Your task to perform on an android device: add a contact in the contacts app Image 0: 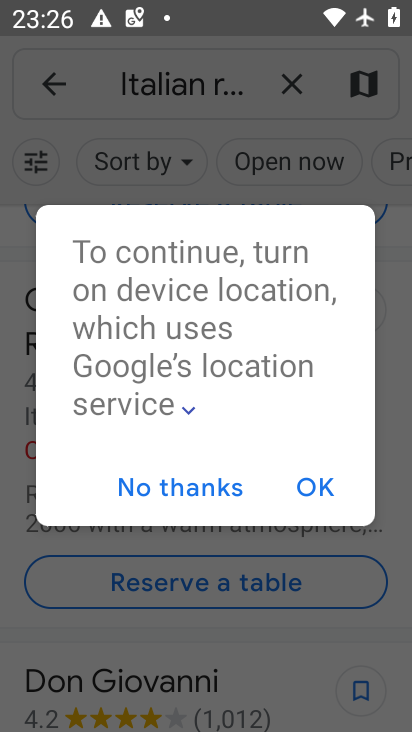
Step 0: press home button
Your task to perform on an android device: add a contact in the contacts app Image 1: 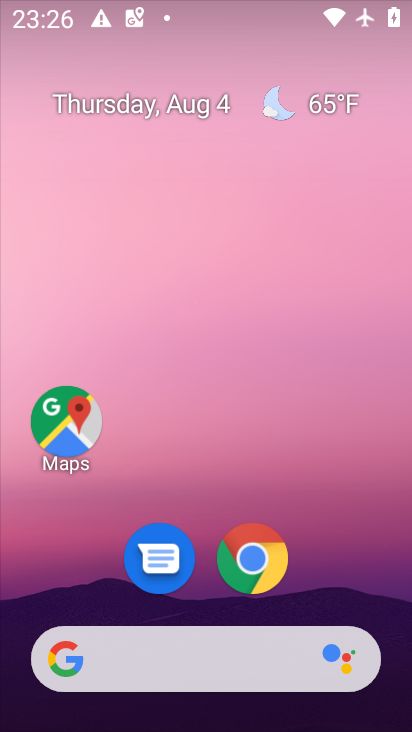
Step 1: drag from (362, 539) to (306, 38)
Your task to perform on an android device: add a contact in the contacts app Image 2: 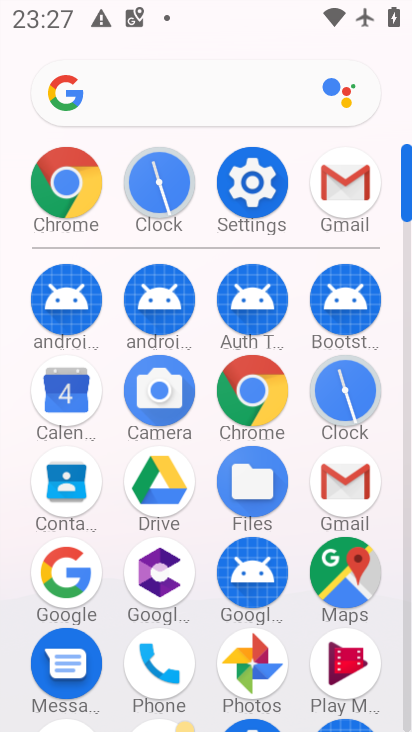
Step 2: click (57, 486)
Your task to perform on an android device: add a contact in the contacts app Image 3: 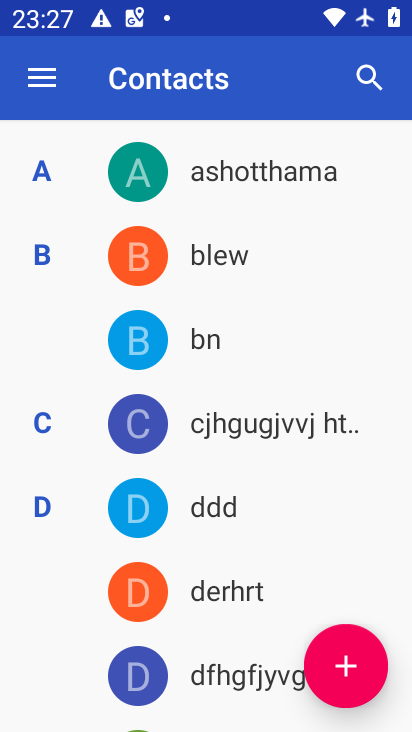
Step 3: click (332, 672)
Your task to perform on an android device: add a contact in the contacts app Image 4: 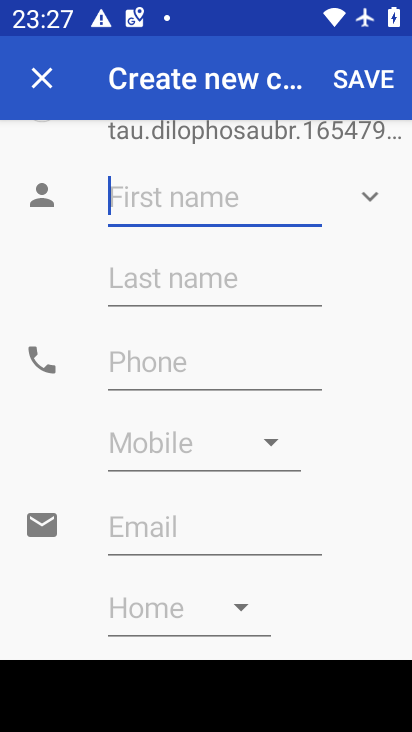
Step 4: type "dak bangla"
Your task to perform on an android device: add a contact in the contacts app Image 5: 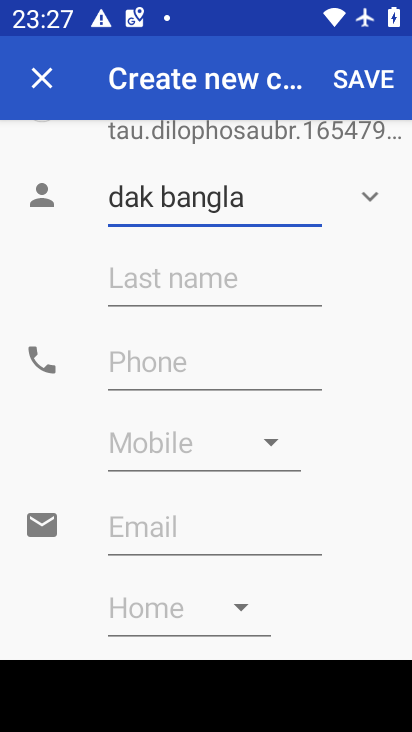
Step 5: click (370, 84)
Your task to perform on an android device: add a contact in the contacts app Image 6: 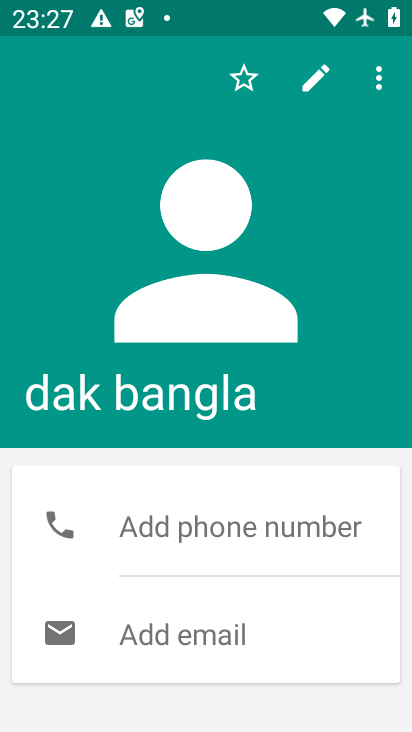
Step 6: task complete